Your task to perform on an android device: Go to notification settings Image 0: 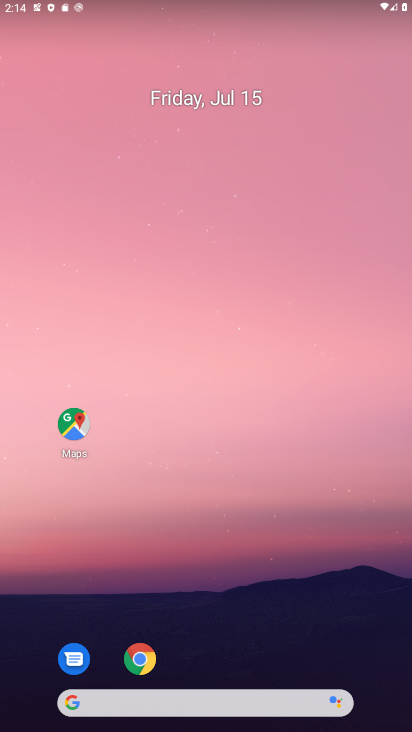
Step 0: drag from (146, 656) to (219, 286)
Your task to perform on an android device: Go to notification settings Image 1: 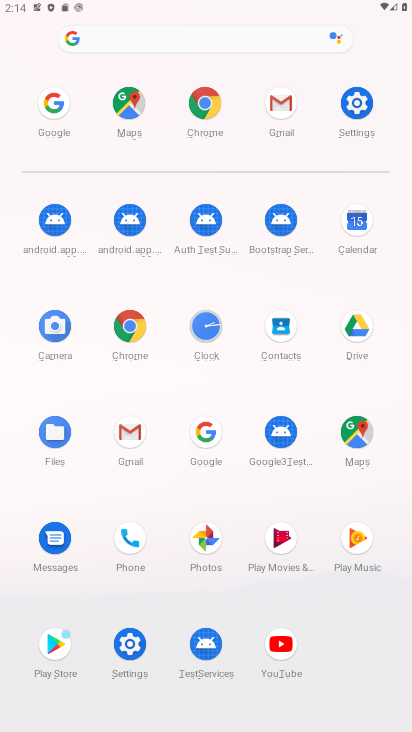
Step 1: click (370, 93)
Your task to perform on an android device: Go to notification settings Image 2: 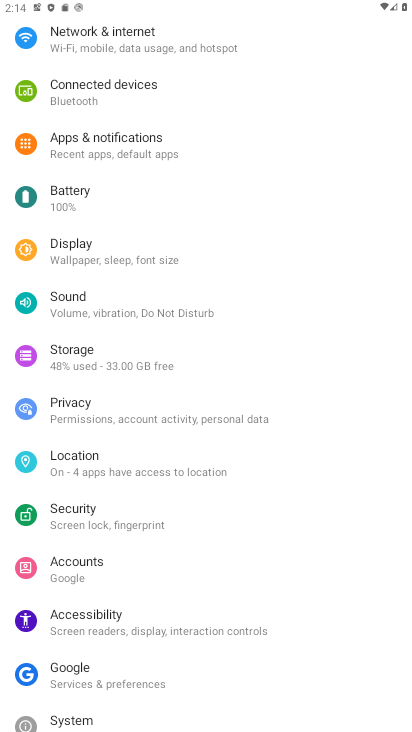
Step 2: click (163, 141)
Your task to perform on an android device: Go to notification settings Image 3: 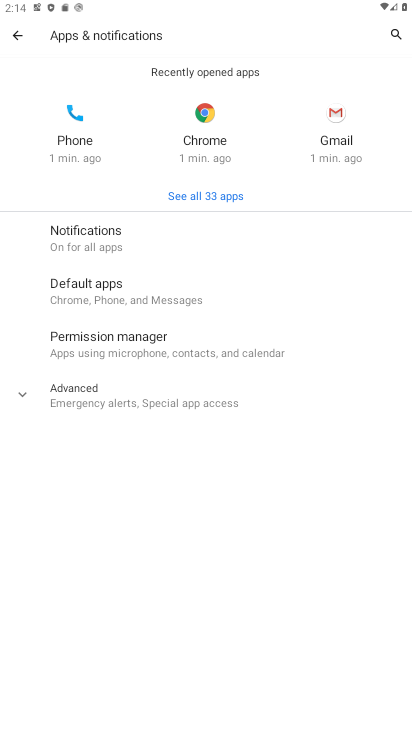
Step 3: task complete